Your task to perform on an android device: create a new album in the google photos Image 0: 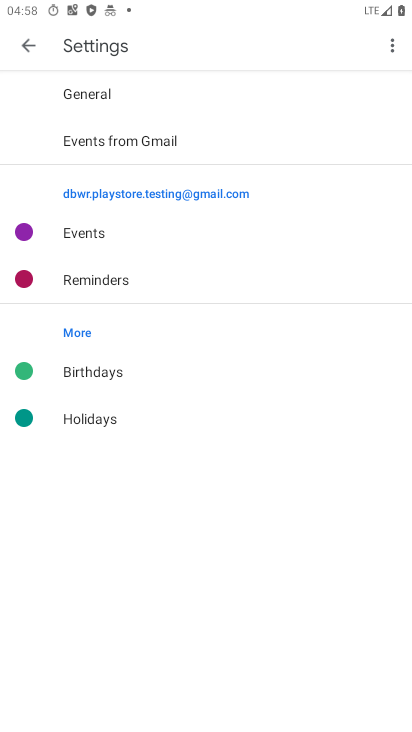
Step 0: press home button
Your task to perform on an android device: create a new album in the google photos Image 1: 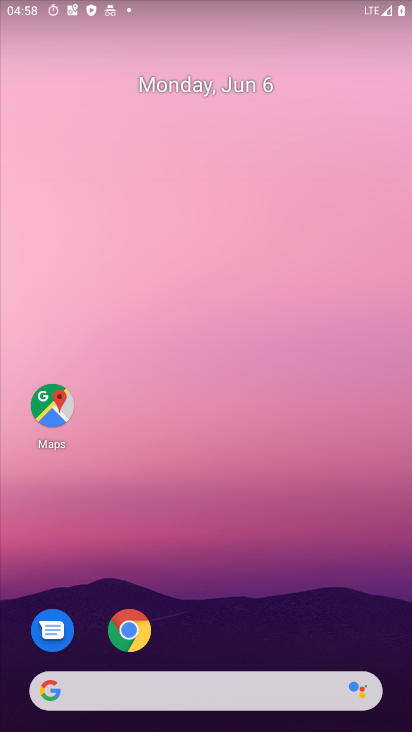
Step 1: drag from (222, 607) to (273, 200)
Your task to perform on an android device: create a new album in the google photos Image 2: 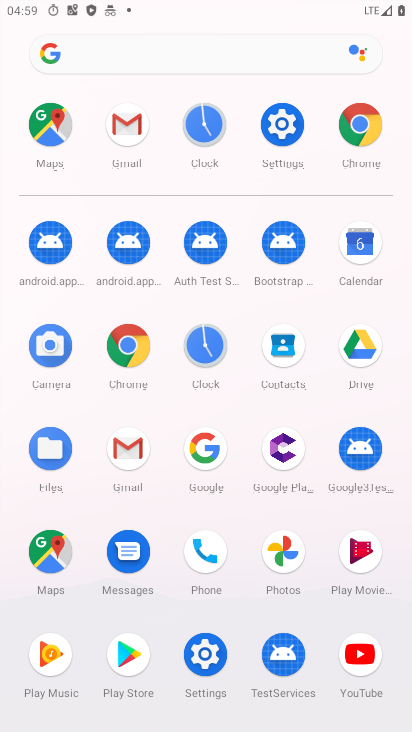
Step 2: click (283, 559)
Your task to perform on an android device: create a new album in the google photos Image 3: 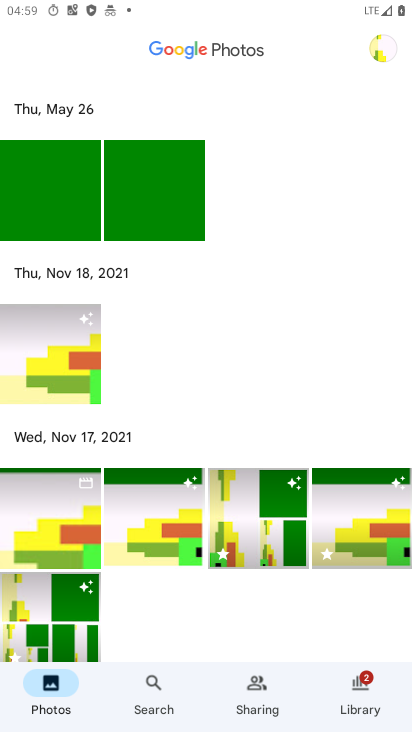
Step 3: click (41, 377)
Your task to perform on an android device: create a new album in the google photos Image 4: 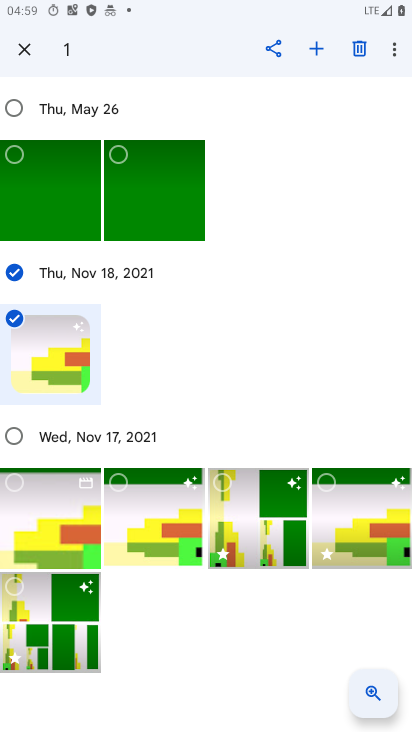
Step 4: click (16, 482)
Your task to perform on an android device: create a new album in the google photos Image 5: 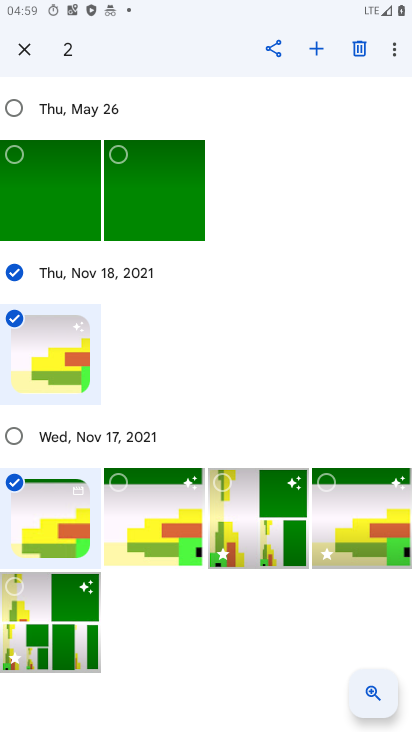
Step 5: click (312, 53)
Your task to perform on an android device: create a new album in the google photos Image 6: 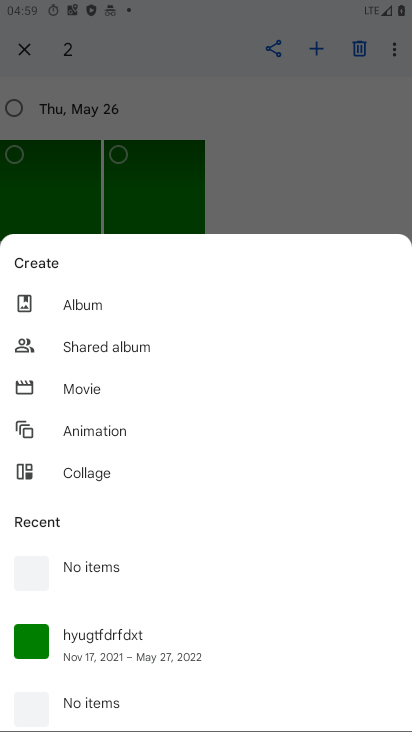
Step 6: click (101, 304)
Your task to perform on an android device: create a new album in the google photos Image 7: 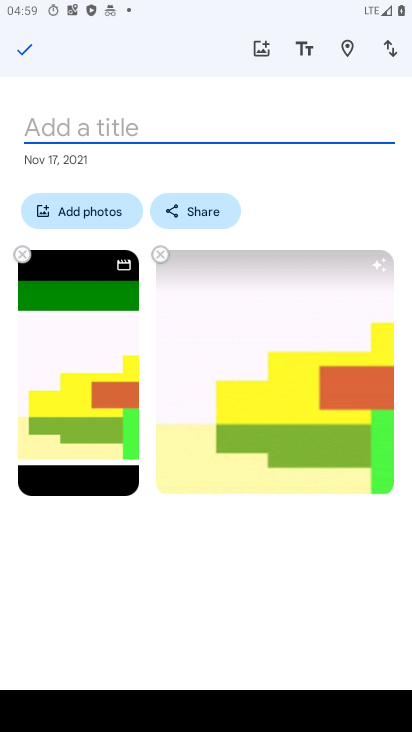
Step 7: type "vvvvv"
Your task to perform on an android device: create a new album in the google photos Image 8: 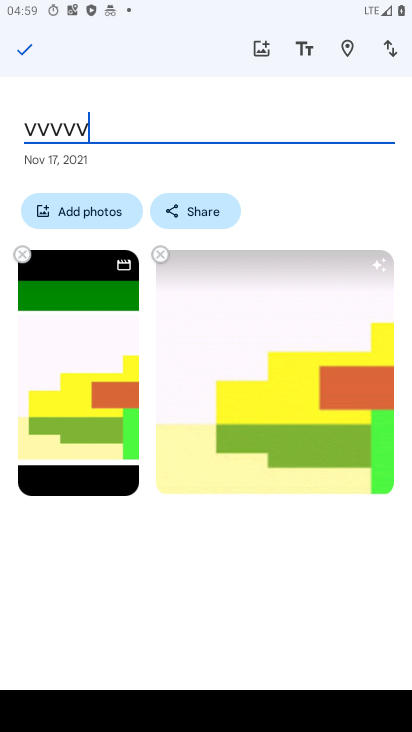
Step 8: click (16, 41)
Your task to perform on an android device: create a new album in the google photos Image 9: 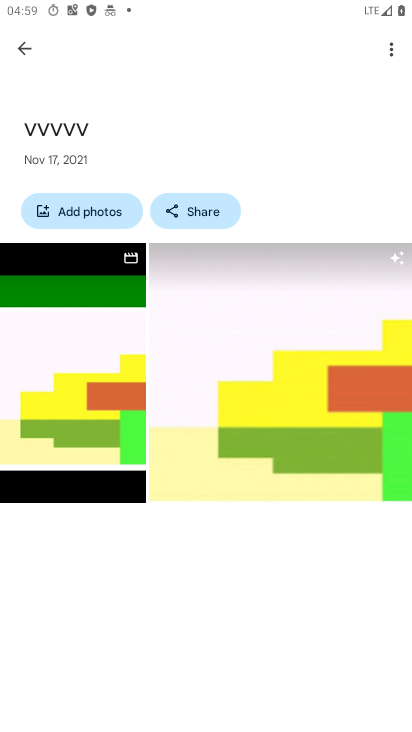
Step 9: task complete